Your task to perform on an android device: Open CNN.com Image 0: 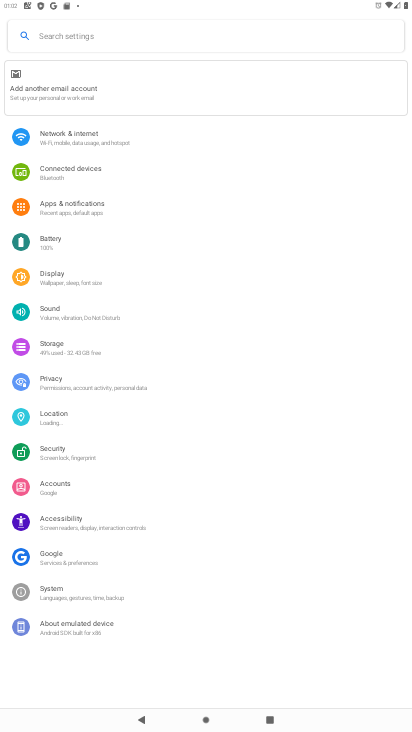
Step 0: press home button
Your task to perform on an android device: Open CNN.com Image 1: 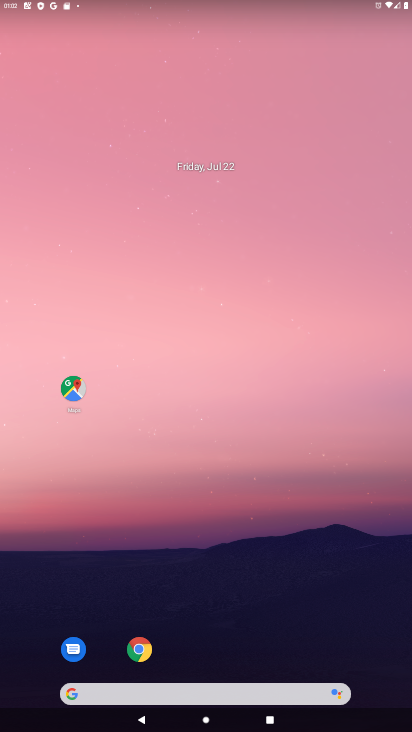
Step 1: drag from (231, 621) to (196, 0)
Your task to perform on an android device: Open CNN.com Image 2: 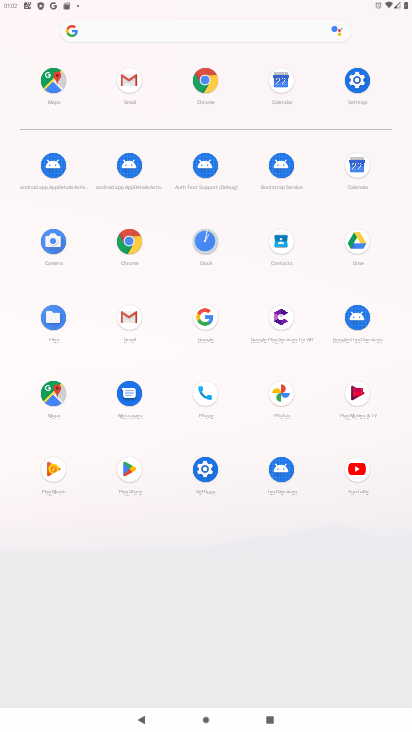
Step 2: click (132, 247)
Your task to perform on an android device: Open CNN.com Image 3: 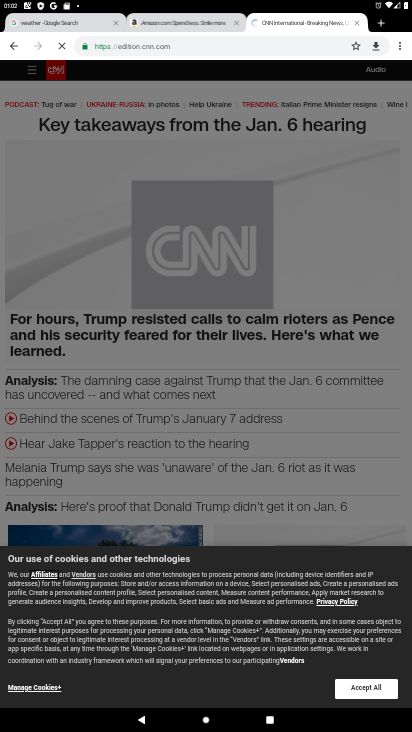
Step 3: task complete